Your task to perform on an android device: Open CNN.com Image 0: 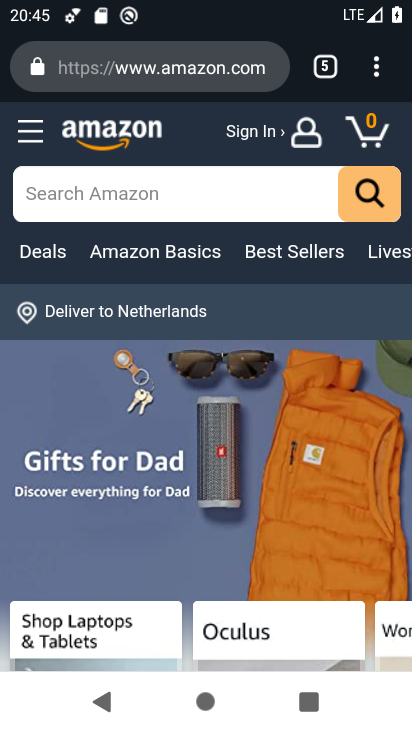
Step 0: press home button
Your task to perform on an android device: Open CNN.com Image 1: 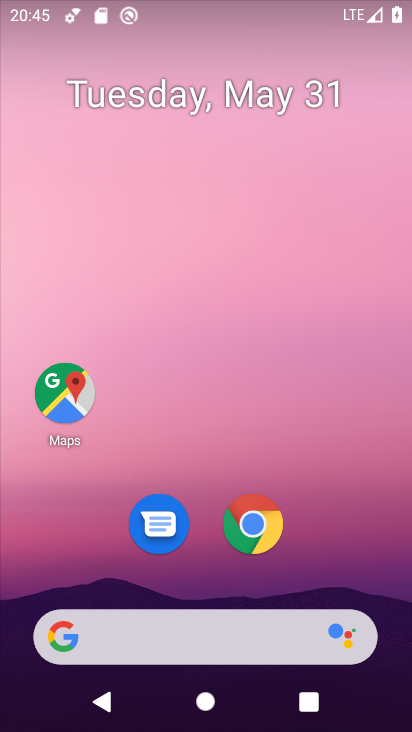
Step 1: click (260, 637)
Your task to perform on an android device: Open CNN.com Image 2: 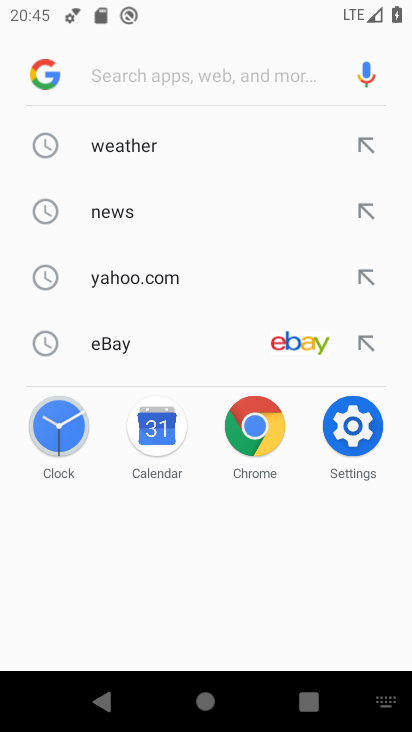
Step 2: type "cnn.com"
Your task to perform on an android device: Open CNN.com Image 3: 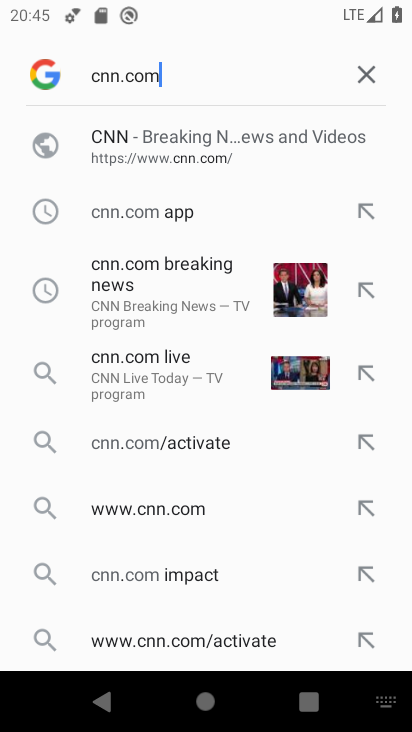
Step 3: click (105, 139)
Your task to perform on an android device: Open CNN.com Image 4: 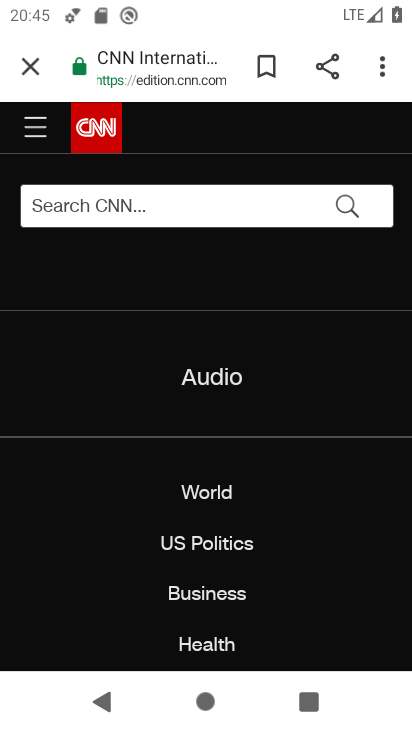
Step 4: task complete